Your task to perform on an android device: Open the calendar and show me this week's events? Image 0: 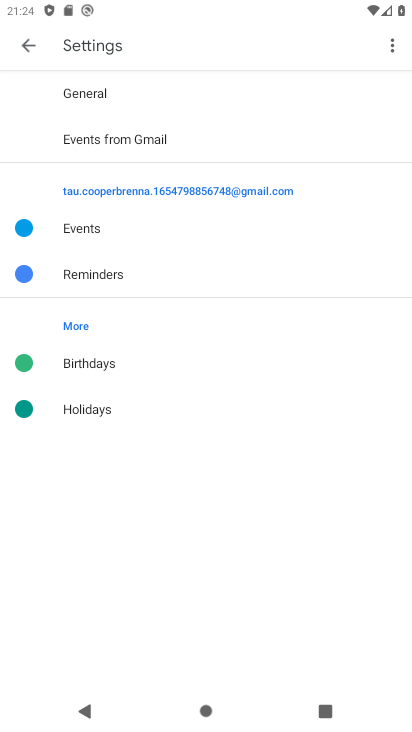
Step 0: press back button
Your task to perform on an android device: Open the calendar and show me this week's events? Image 1: 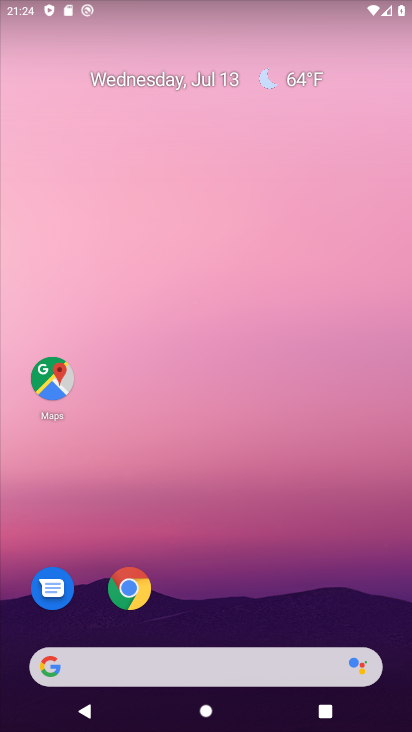
Step 1: drag from (195, 593) to (270, 22)
Your task to perform on an android device: Open the calendar and show me this week's events? Image 2: 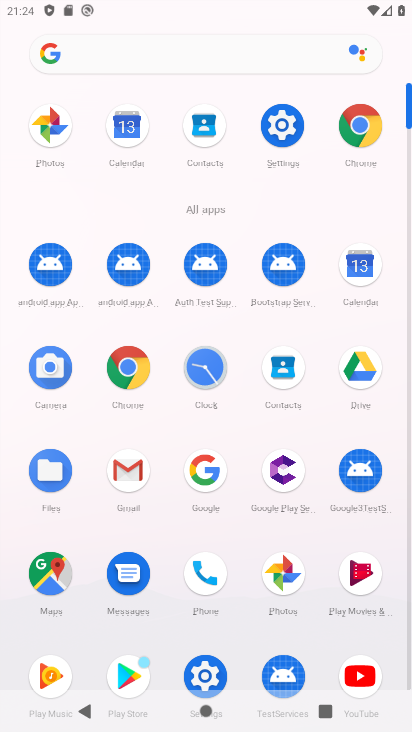
Step 2: click (362, 311)
Your task to perform on an android device: Open the calendar and show me this week's events? Image 3: 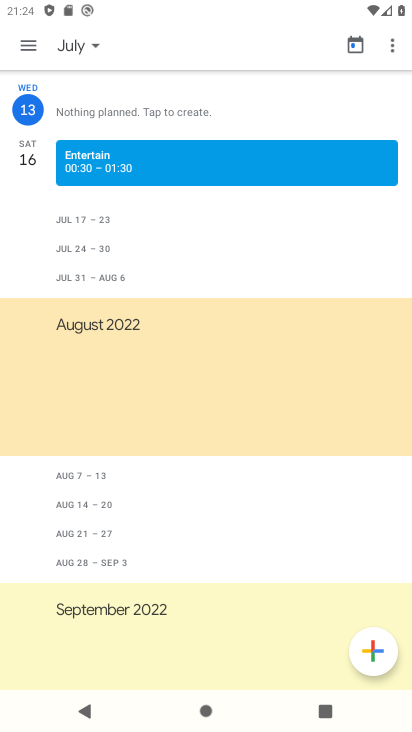
Step 3: task complete